Your task to perform on an android device: Go to Android settings Image 0: 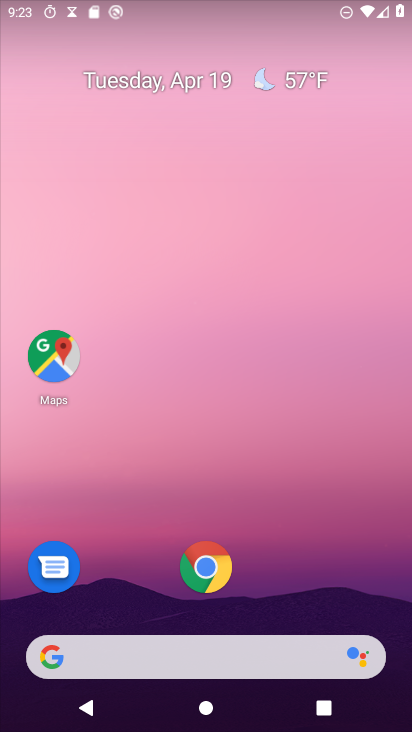
Step 0: drag from (304, 529) to (189, 57)
Your task to perform on an android device: Go to Android settings Image 1: 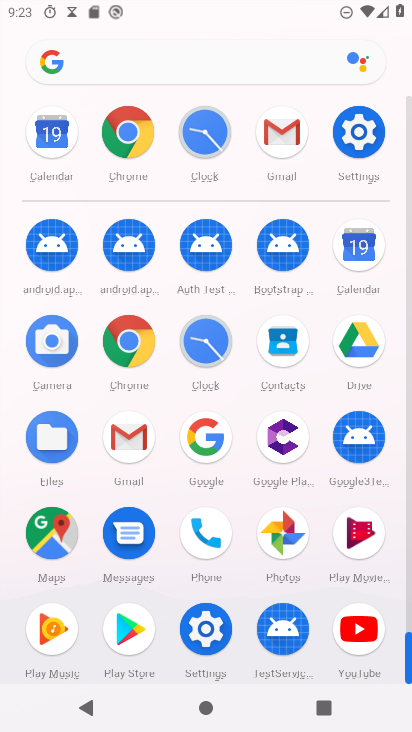
Step 1: click (196, 643)
Your task to perform on an android device: Go to Android settings Image 2: 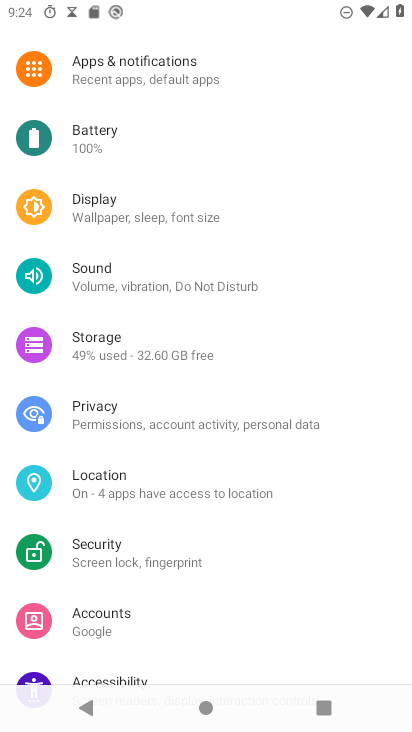
Step 2: drag from (173, 595) to (160, 268)
Your task to perform on an android device: Go to Android settings Image 3: 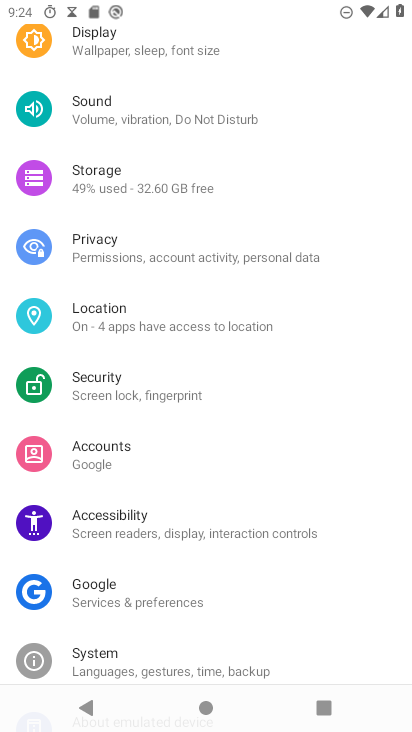
Step 3: drag from (157, 633) to (177, 264)
Your task to perform on an android device: Go to Android settings Image 4: 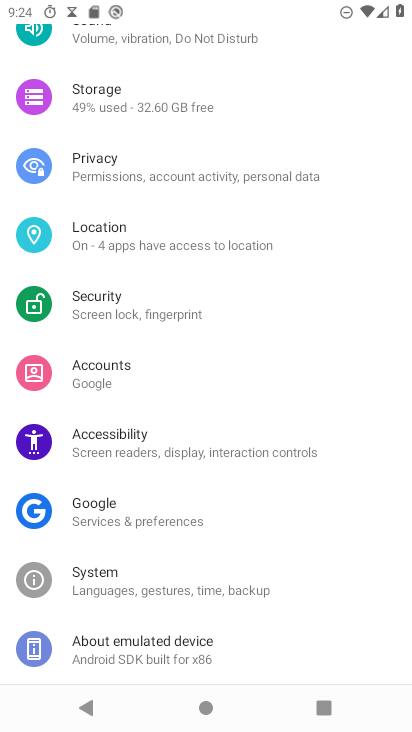
Step 4: click (146, 636)
Your task to perform on an android device: Go to Android settings Image 5: 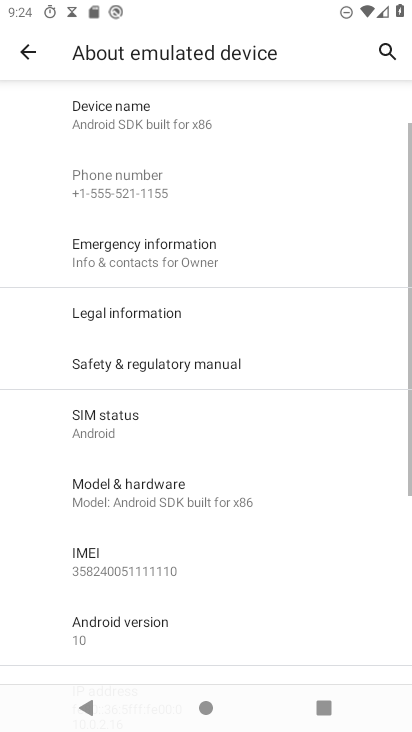
Step 5: click (122, 623)
Your task to perform on an android device: Go to Android settings Image 6: 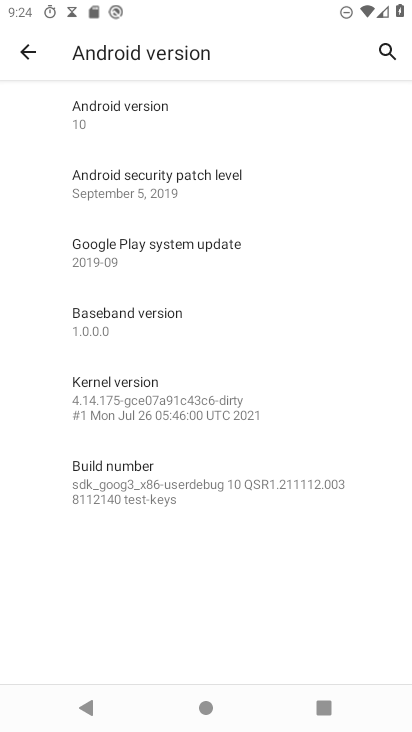
Step 6: task complete